Your task to perform on an android device: change your default location settings in chrome Image 0: 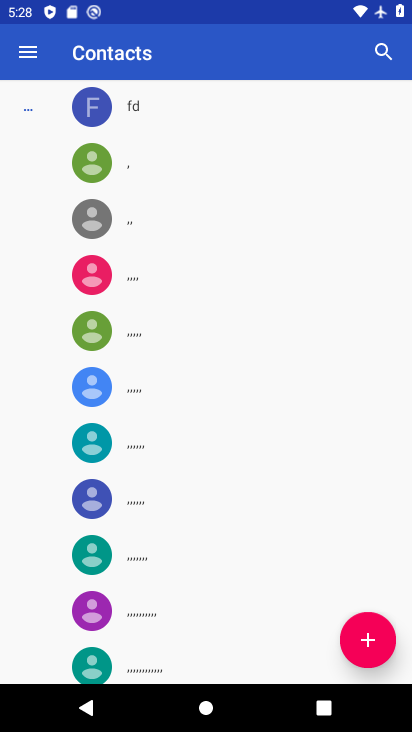
Step 0: press back button
Your task to perform on an android device: change your default location settings in chrome Image 1: 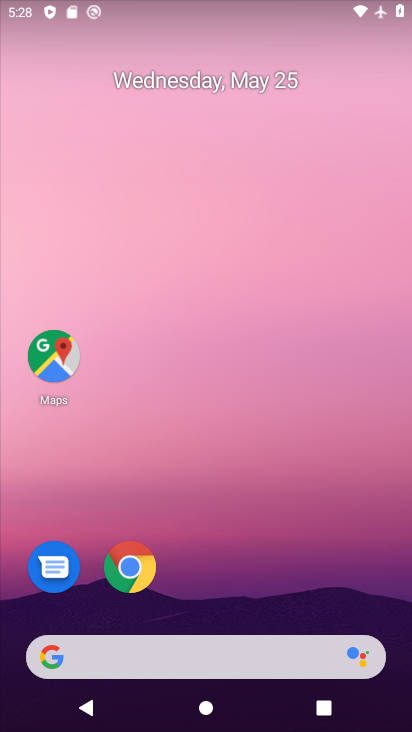
Step 1: drag from (219, 551) to (217, 55)
Your task to perform on an android device: change your default location settings in chrome Image 2: 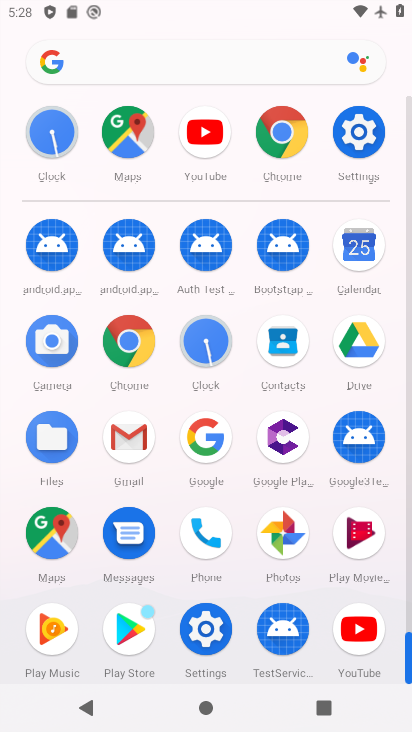
Step 2: drag from (8, 549) to (29, 292)
Your task to perform on an android device: change your default location settings in chrome Image 3: 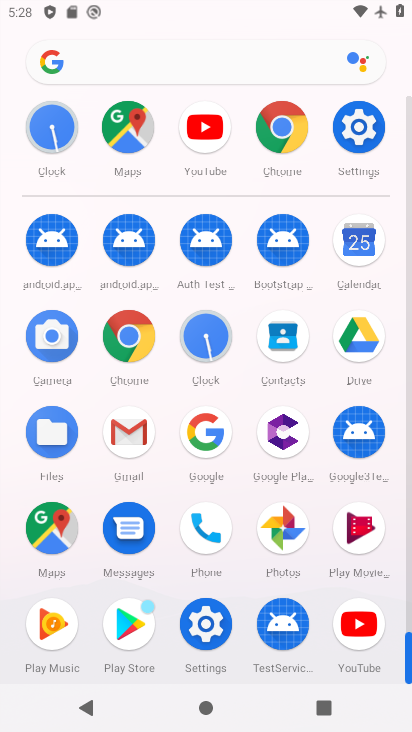
Step 3: click (129, 335)
Your task to perform on an android device: change your default location settings in chrome Image 4: 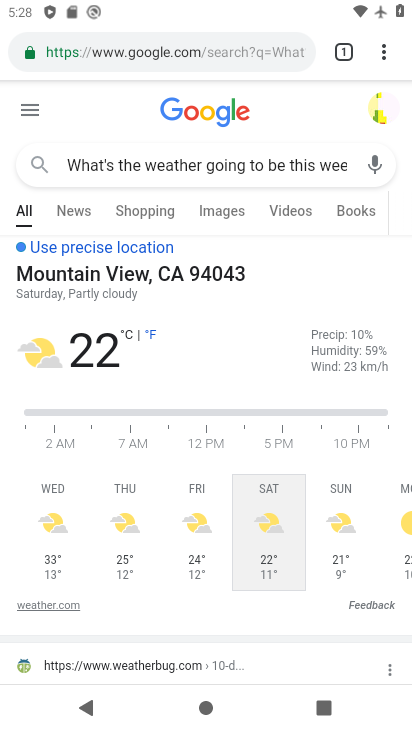
Step 4: drag from (383, 55) to (194, 567)
Your task to perform on an android device: change your default location settings in chrome Image 5: 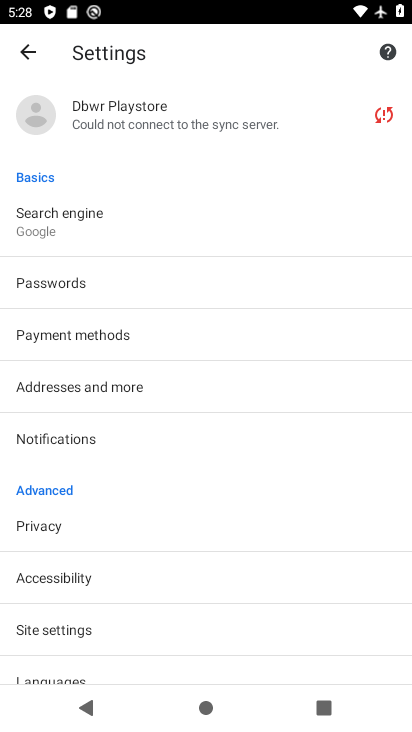
Step 5: drag from (203, 596) to (201, 173)
Your task to perform on an android device: change your default location settings in chrome Image 6: 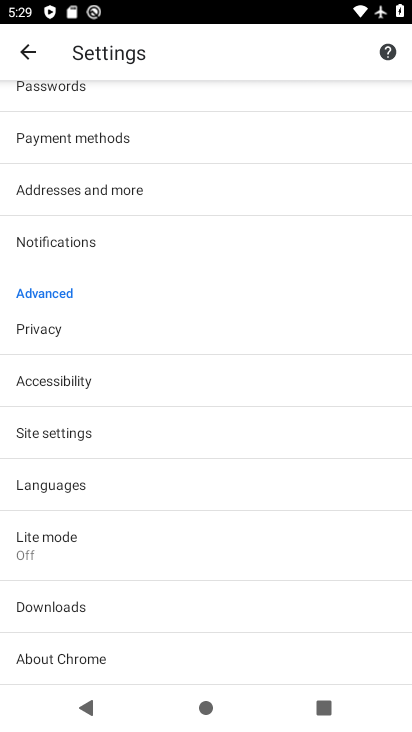
Step 6: drag from (188, 559) to (210, 154)
Your task to perform on an android device: change your default location settings in chrome Image 7: 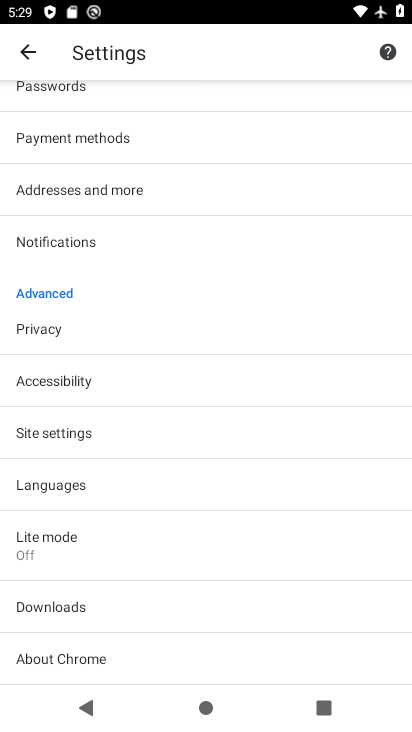
Step 7: click (86, 439)
Your task to perform on an android device: change your default location settings in chrome Image 8: 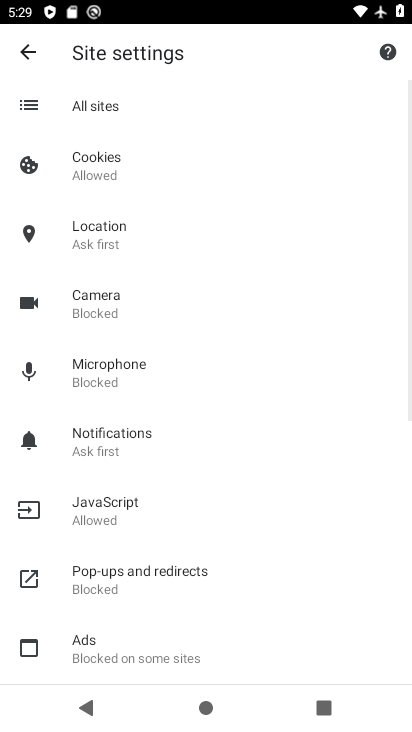
Step 8: click (114, 240)
Your task to perform on an android device: change your default location settings in chrome Image 9: 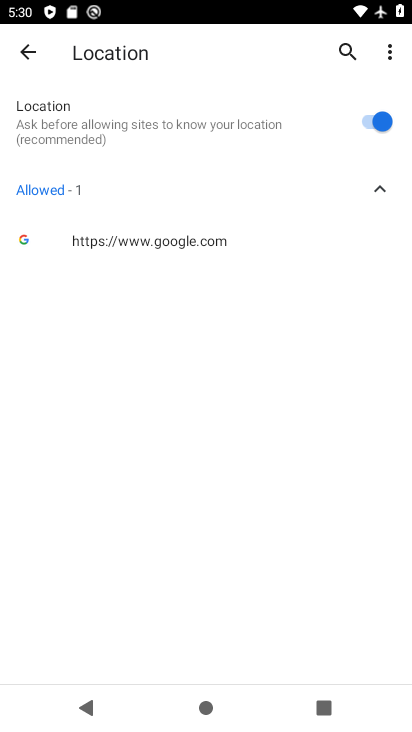
Step 9: click (361, 136)
Your task to perform on an android device: change your default location settings in chrome Image 10: 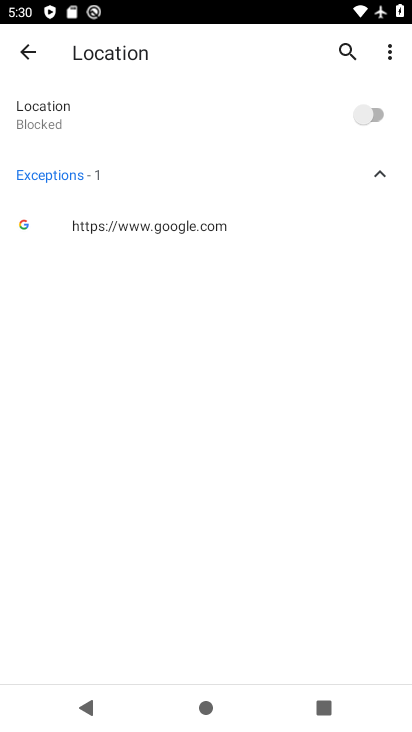
Step 10: task complete